Your task to perform on an android device: Clear all items from cart on bestbuy. Add razer thresher to the cart on bestbuy Image 0: 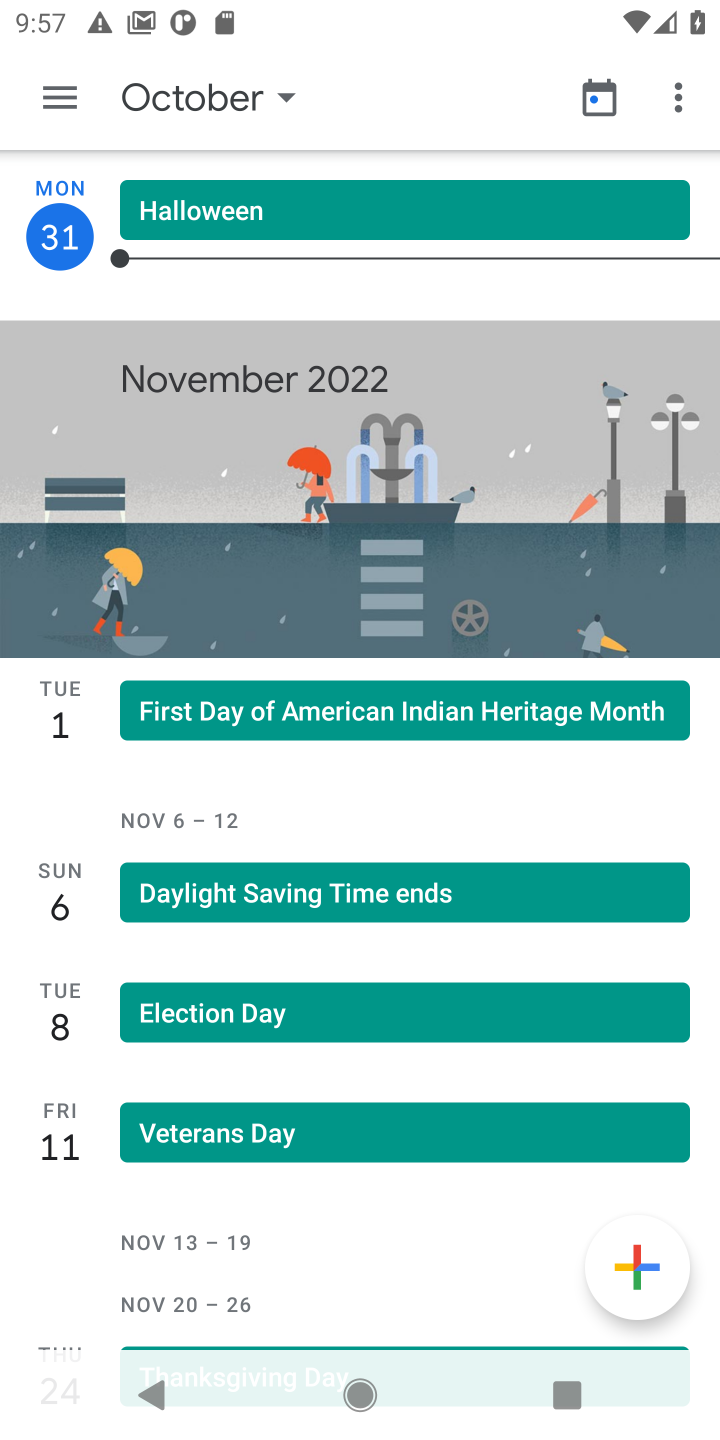
Step 0: press home button
Your task to perform on an android device: Clear all items from cart on bestbuy. Add razer thresher to the cart on bestbuy Image 1: 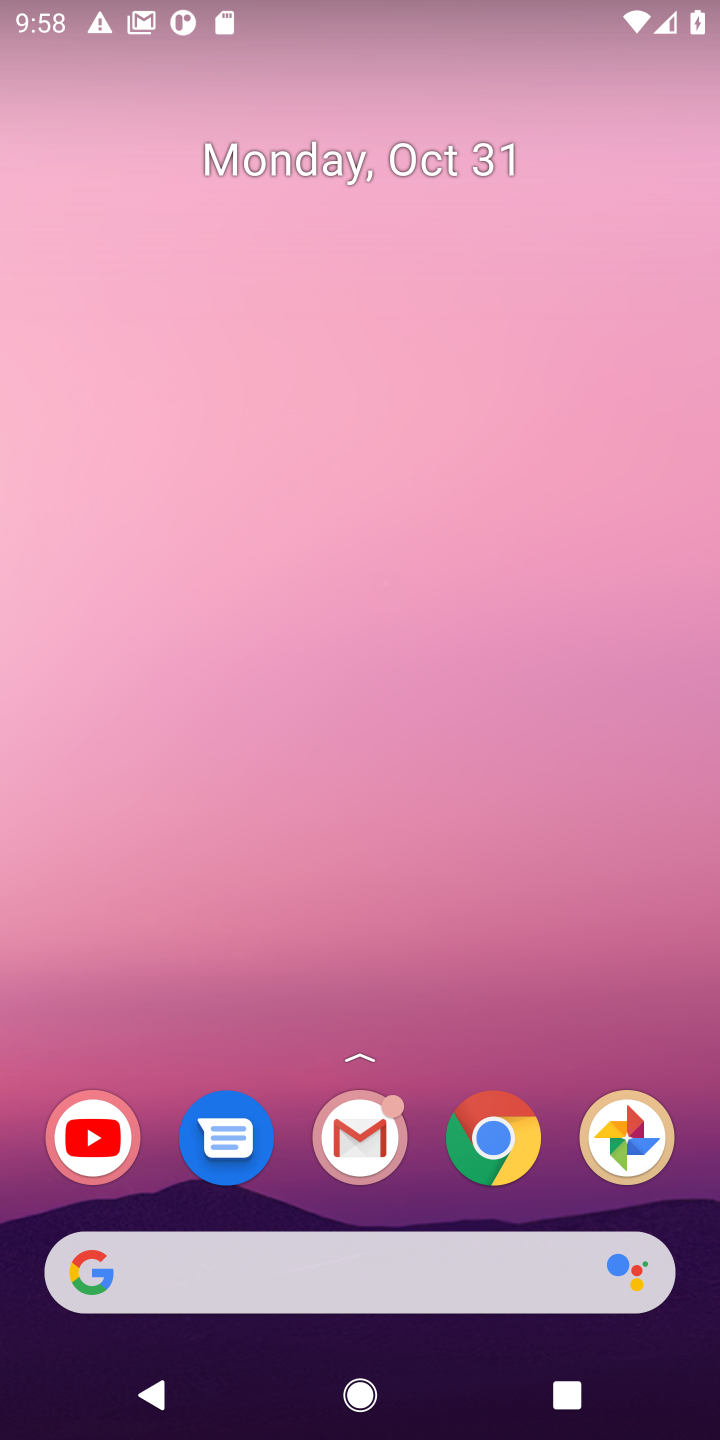
Step 1: drag from (468, 1380) to (499, 126)
Your task to perform on an android device: Clear all items from cart on bestbuy. Add razer thresher to the cart on bestbuy Image 2: 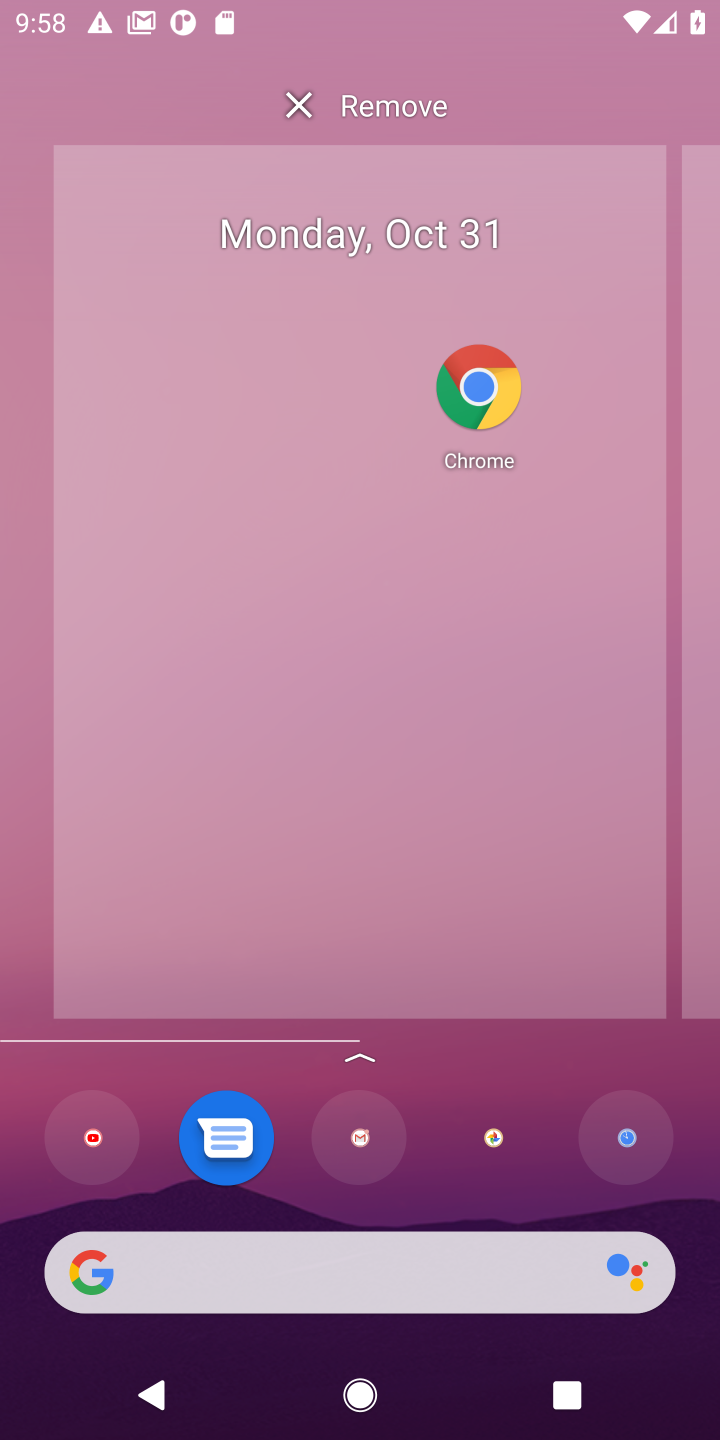
Step 2: click (477, 1093)
Your task to perform on an android device: Clear all items from cart on bestbuy. Add razer thresher to the cart on bestbuy Image 3: 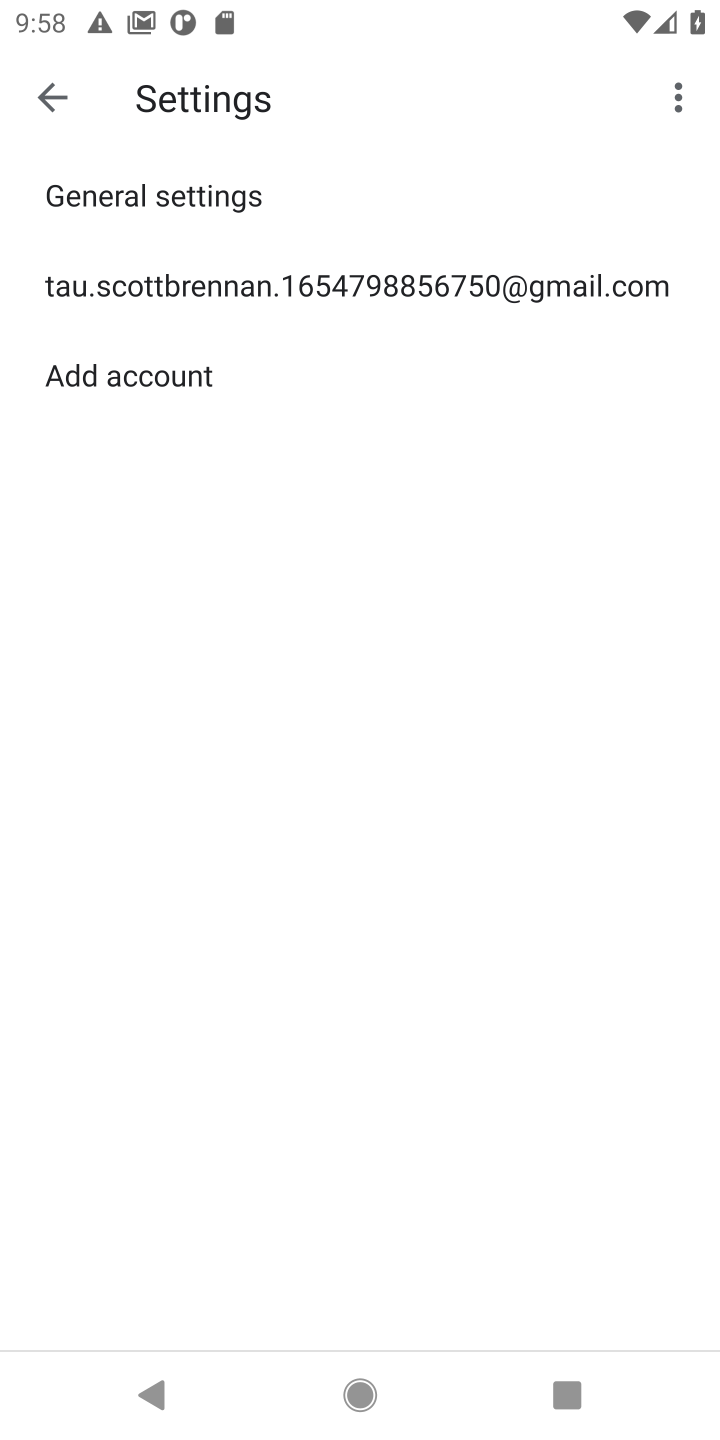
Step 3: press home button
Your task to perform on an android device: Clear all items from cart on bestbuy. Add razer thresher to the cart on bestbuy Image 4: 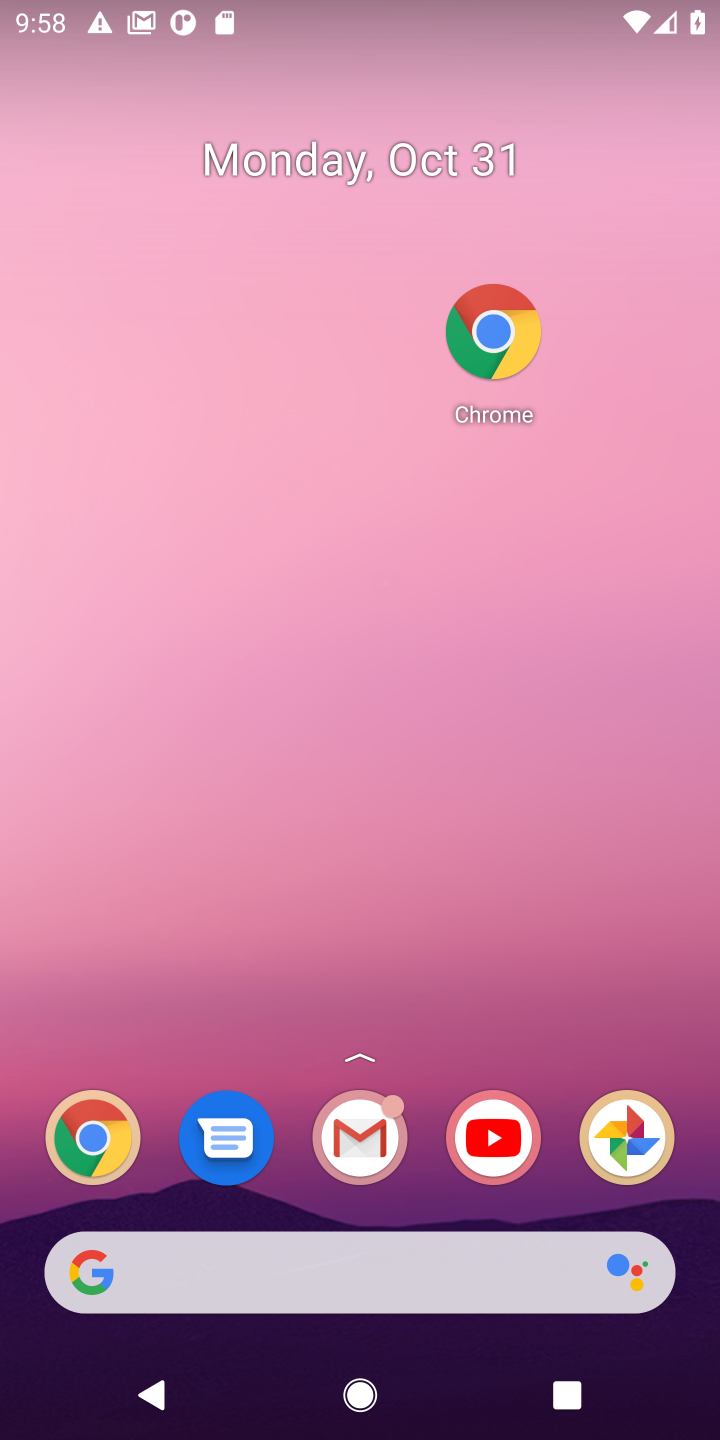
Step 4: drag from (446, 1369) to (252, 246)
Your task to perform on an android device: Clear all items from cart on bestbuy. Add razer thresher to the cart on bestbuy Image 5: 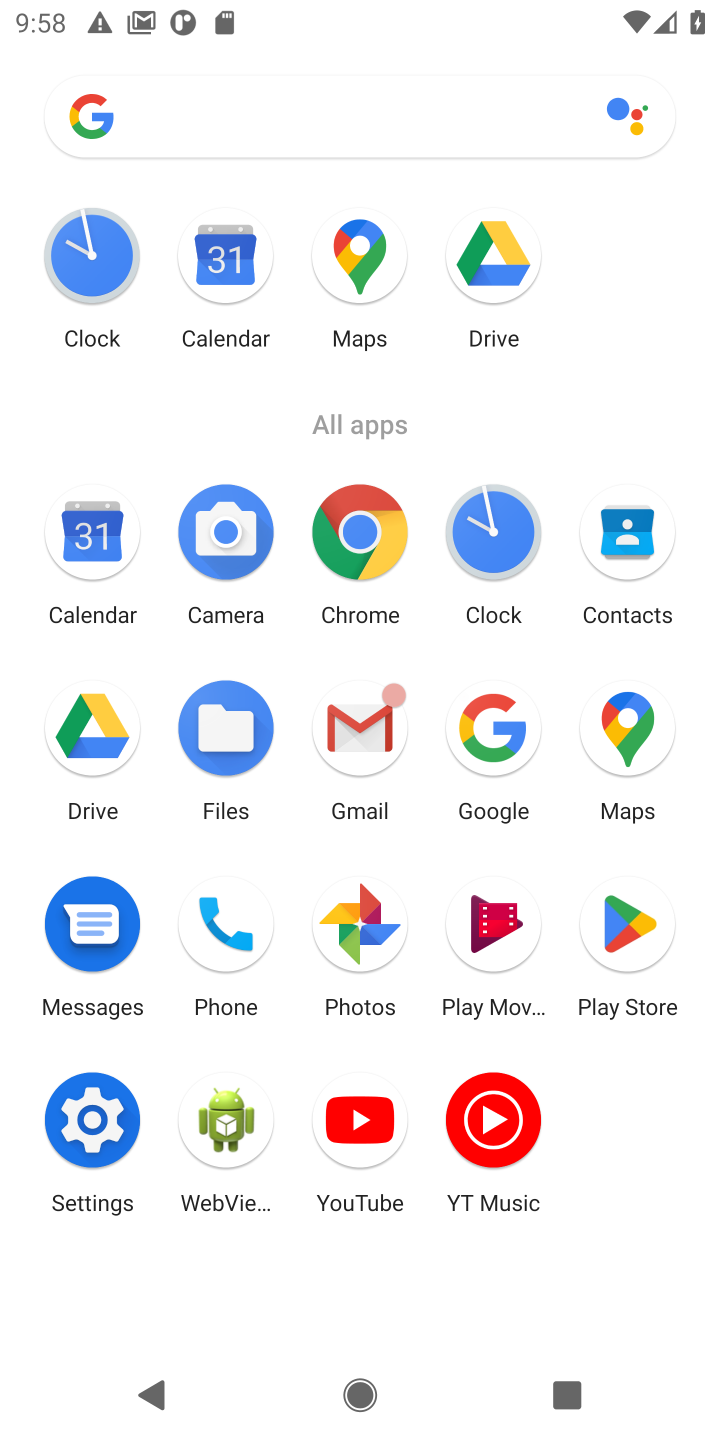
Step 5: click (363, 527)
Your task to perform on an android device: Clear all items from cart on bestbuy. Add razer thresher to the cart on bestbuy Image 6: 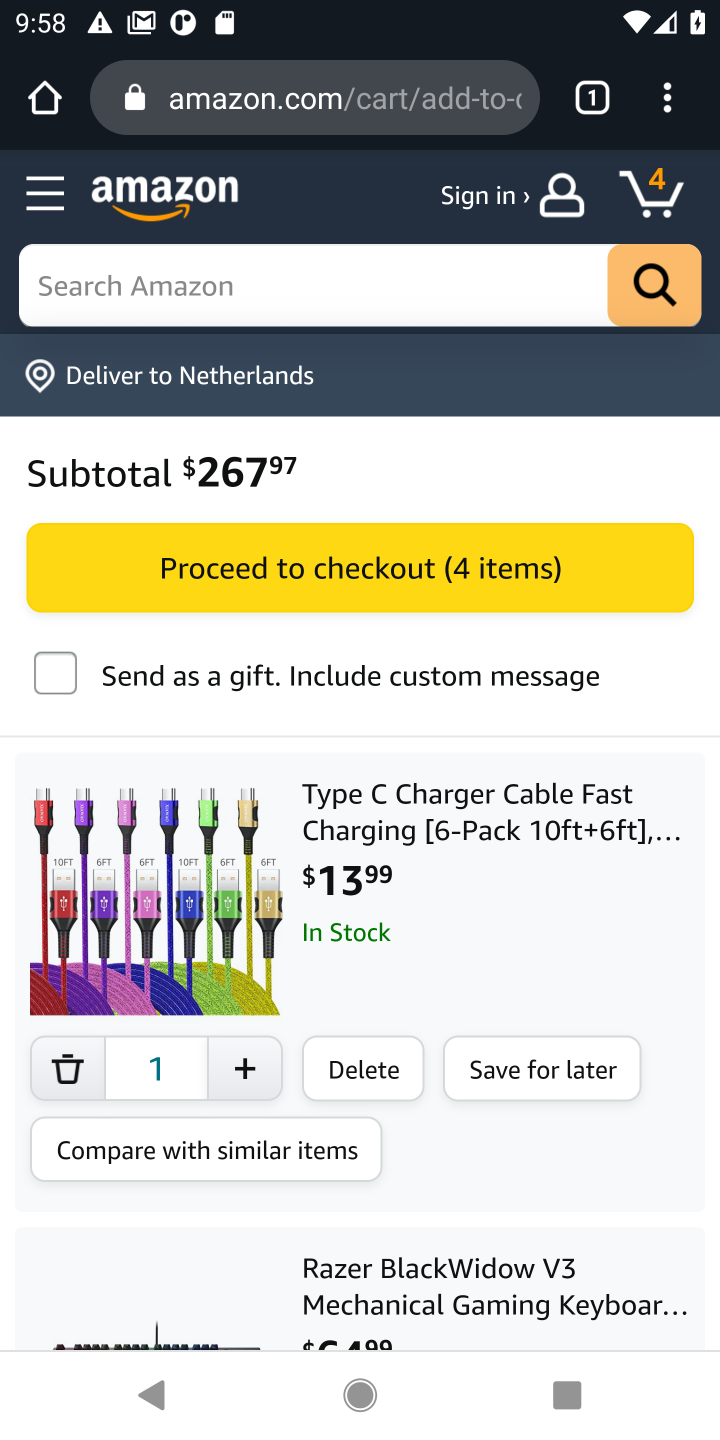
Step 6: click (305, 92)
Your task to perform on an android device: Clear all items from cart on bestbuy. Add razer thresher to the cart on bestbuy Image 7: 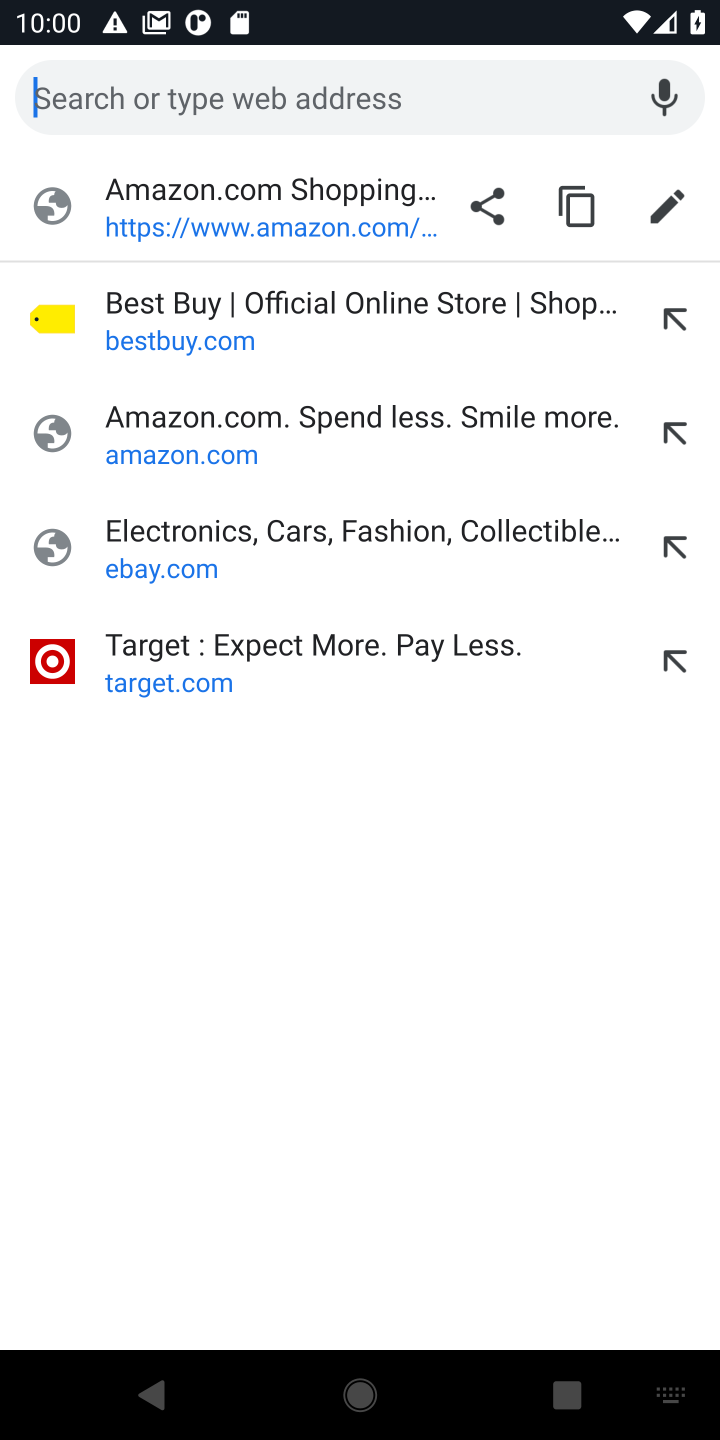
Step 7: click (149, 340)
Your task to perform on an android device: Clear all items from cart on bestbuy. Add razer thresher to the cart on bestbuy Image 8: 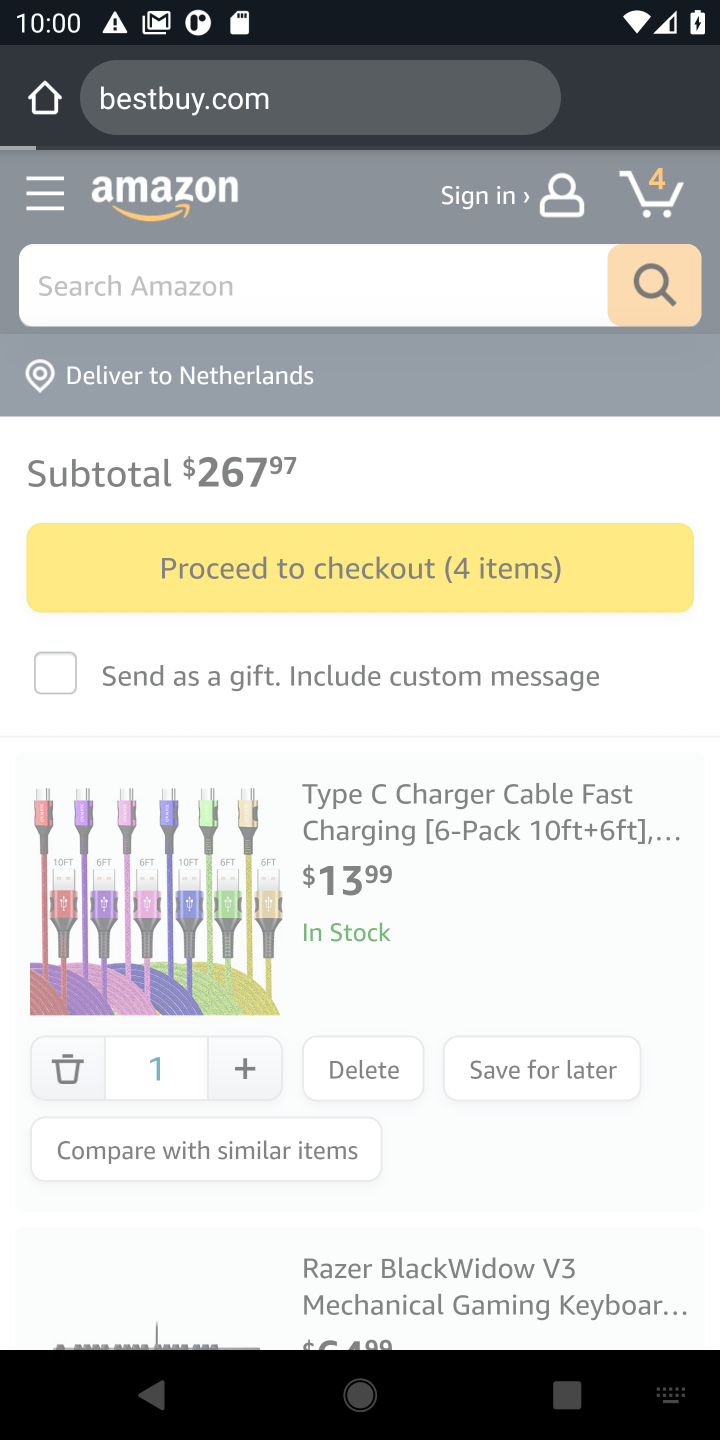
Step 8: click (168, 338)
Your task to perform on an android device: Clear all items from cart on bestbuy. Add razer thresher to the cart on bestbuy Image 9: 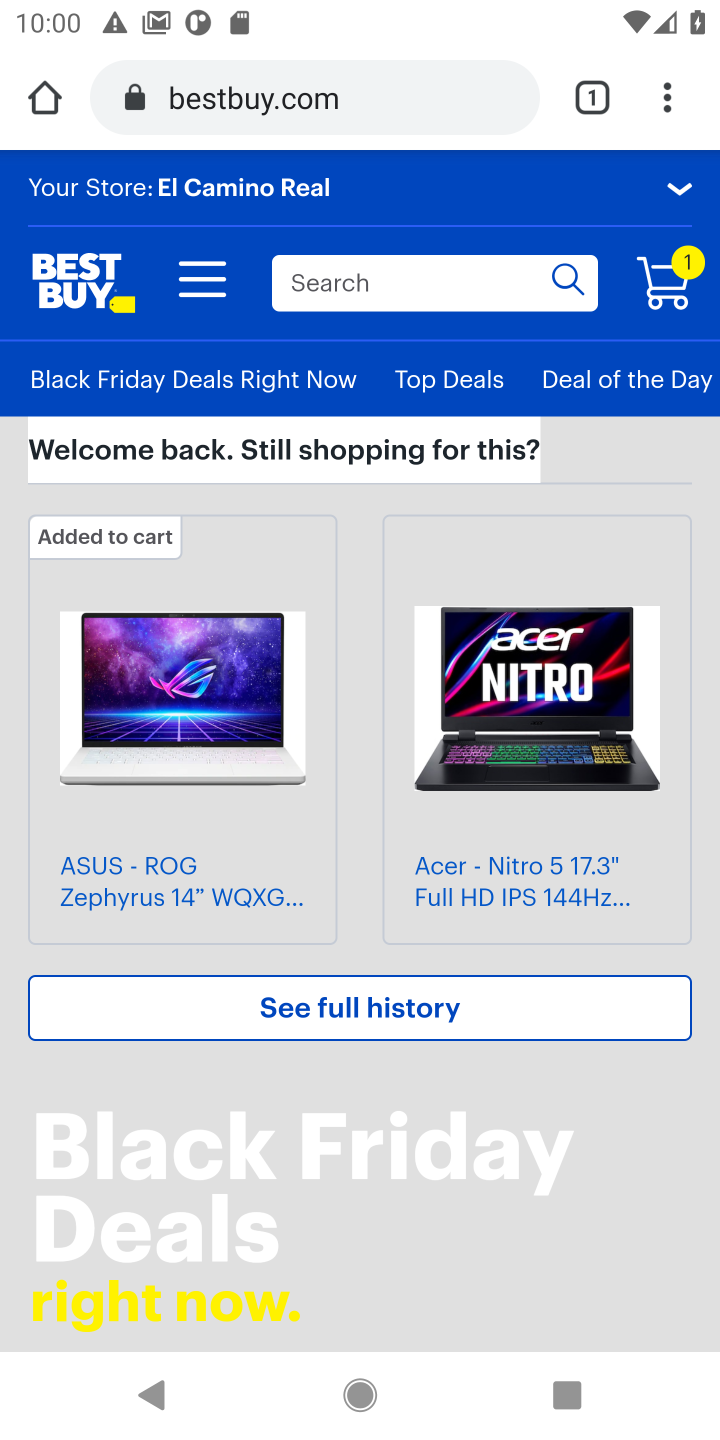
Step 9: click (364, 278)
Your task to perform on an android device: Clear all items from cart on bestbuy. Add razer thresher to the cart on bestbuy Image 10: 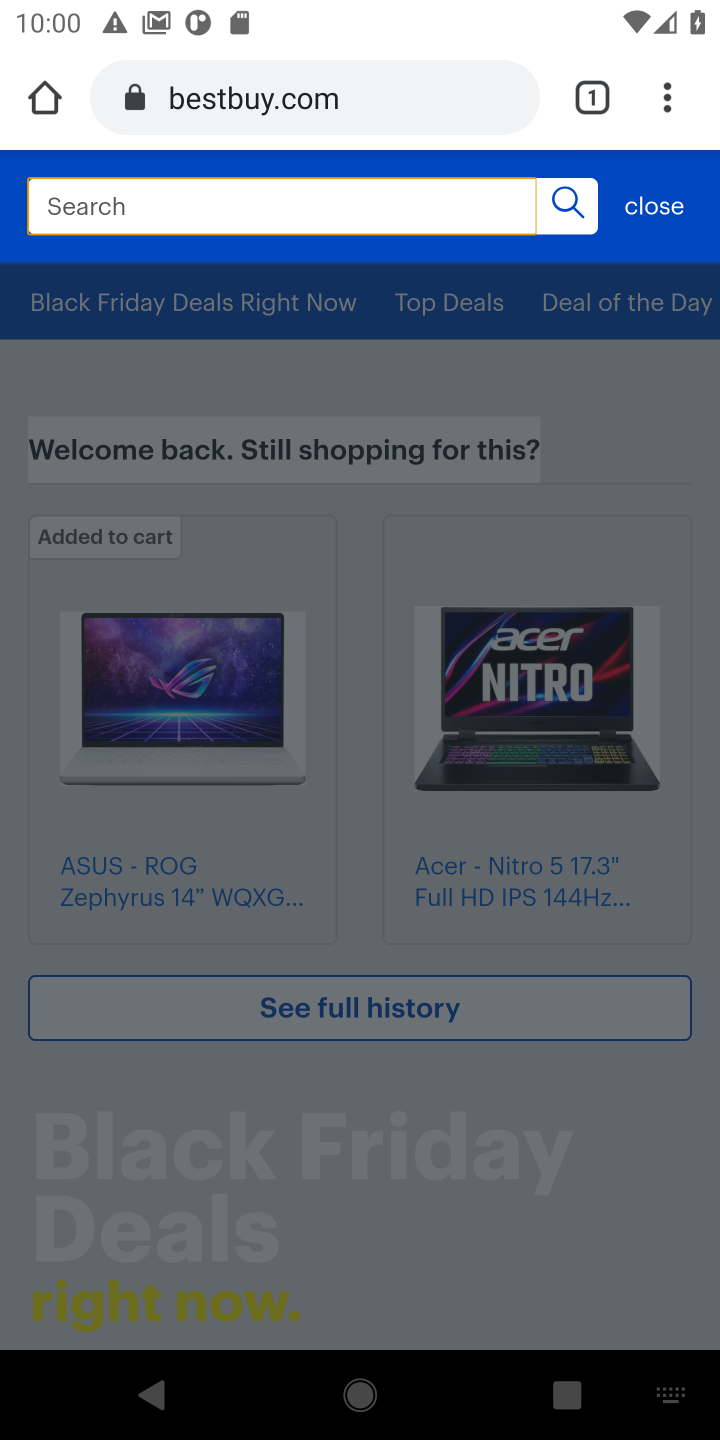
Step 10: type " razer thresher "
Your task to perform on an android device: Clear all items from cart on bestbuy. Add razer thresher to the cart on bestbuy Image 11: 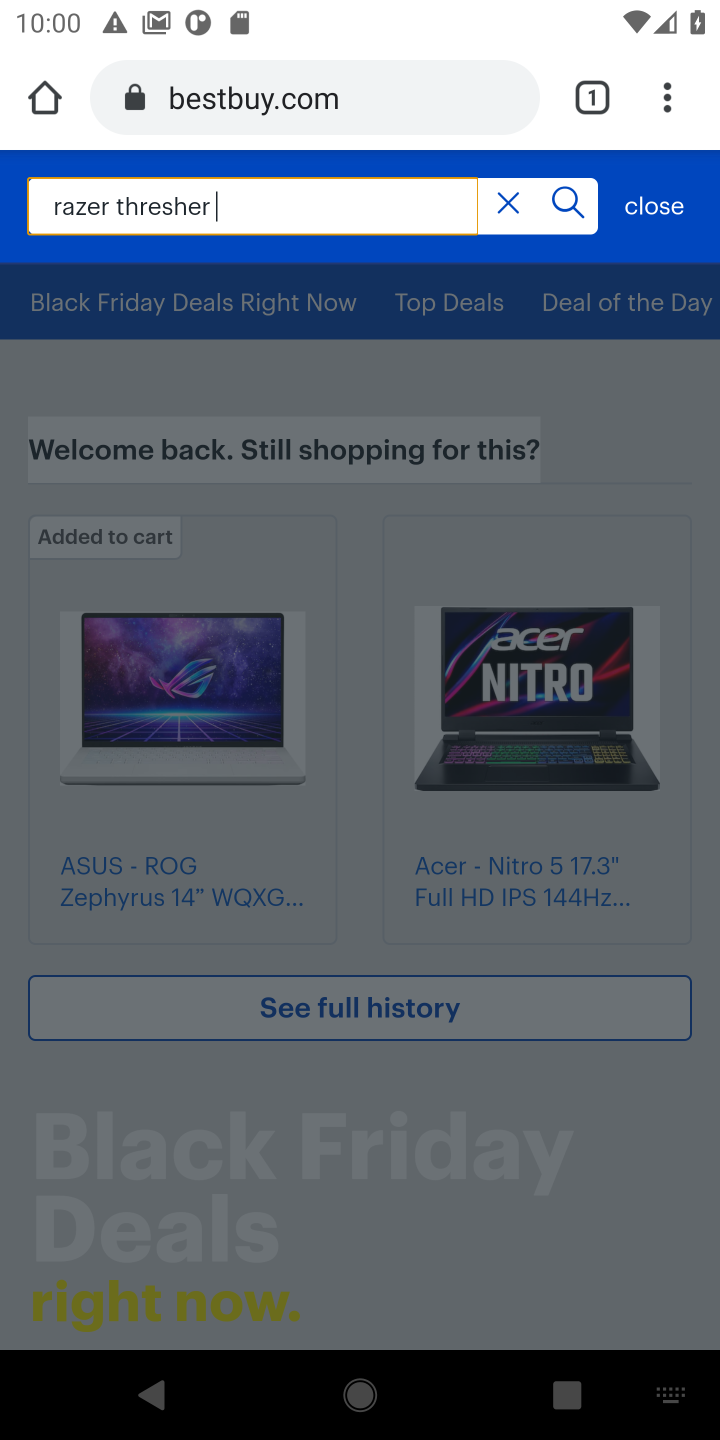
Step 11: click (566, 203)
Your task to perform on an android device: Clear all items from cart on bestbuy. Add razer thresher to the cart on bestbuy Image 12: 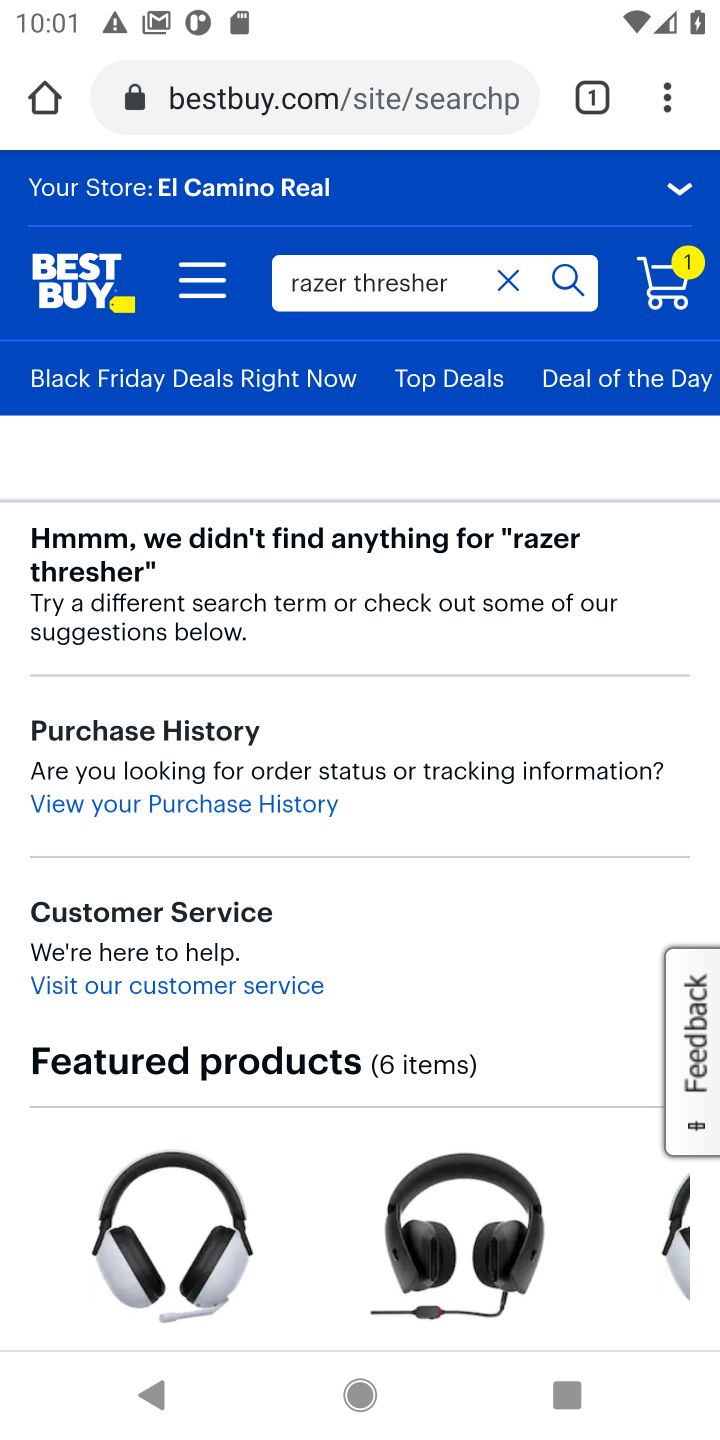
Step 12: click (561, 290)
Your task to perform on an android device: Clear all items from cart on bestbuy. Add razer thresher to the cart on bestbuy Image 13: 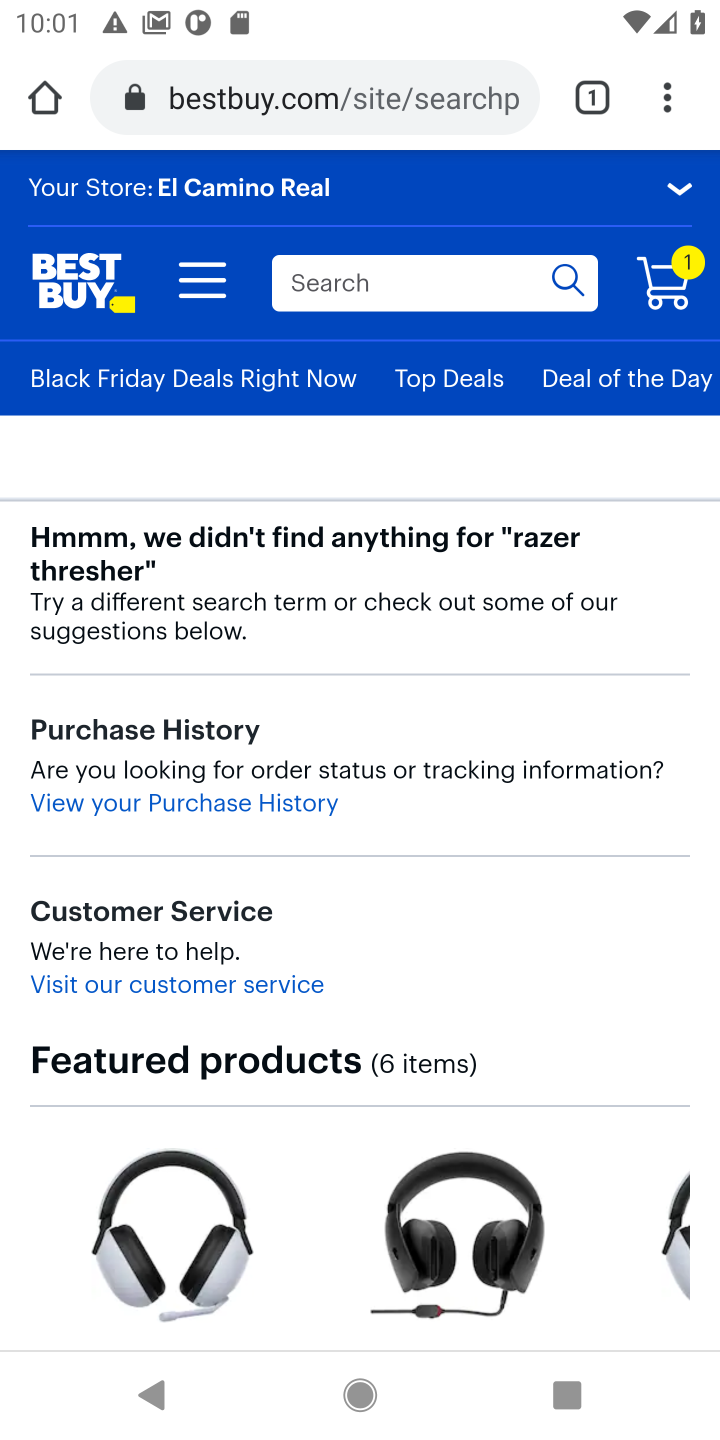
Step 13: drag from (311, 1178) to (163, 453)
Your task to perform on an android device: Clear all items from cart on bestbuy. Add razer thresher to the cart on bestbuy Image 14: 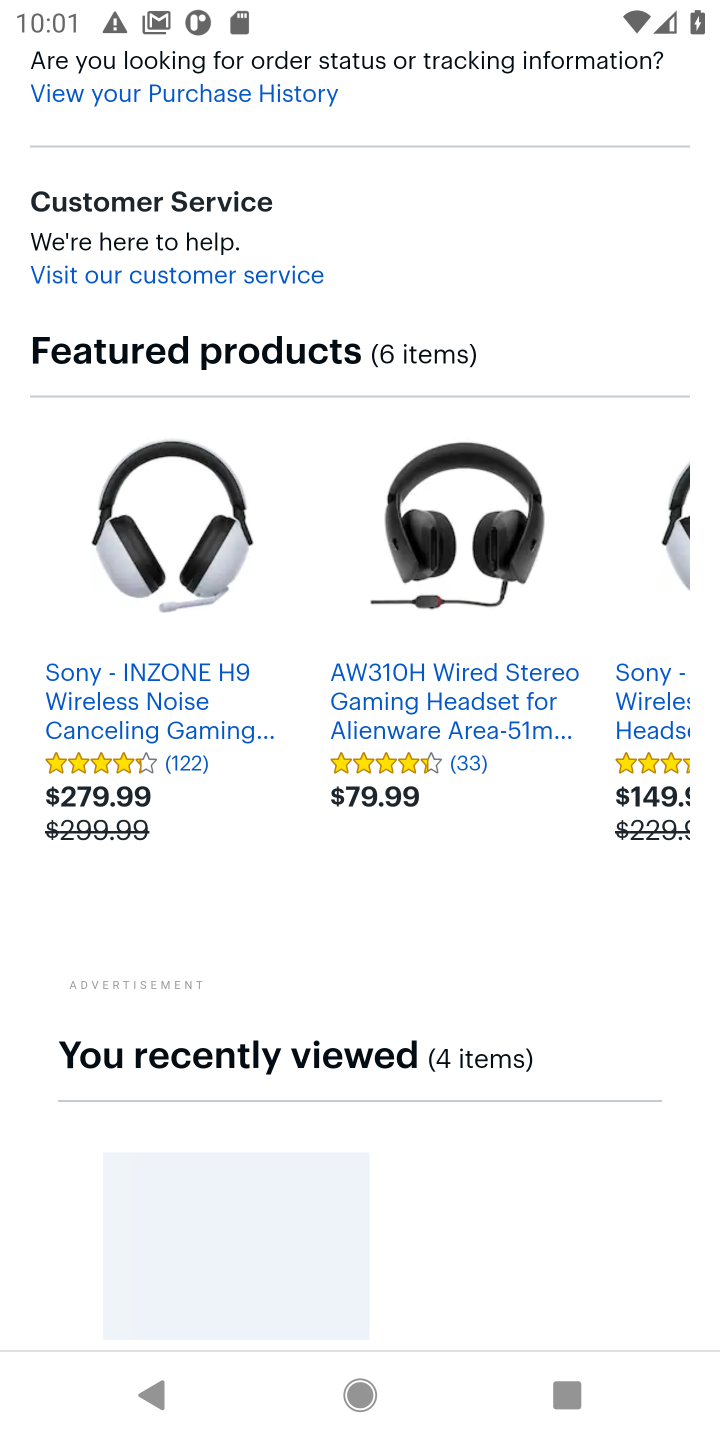
Step 14: click (174, 576)
Your task to perform on an android device: Clear all items from cart on bestbuy. Add razer thresher to the cart on bestbuy Image 15: 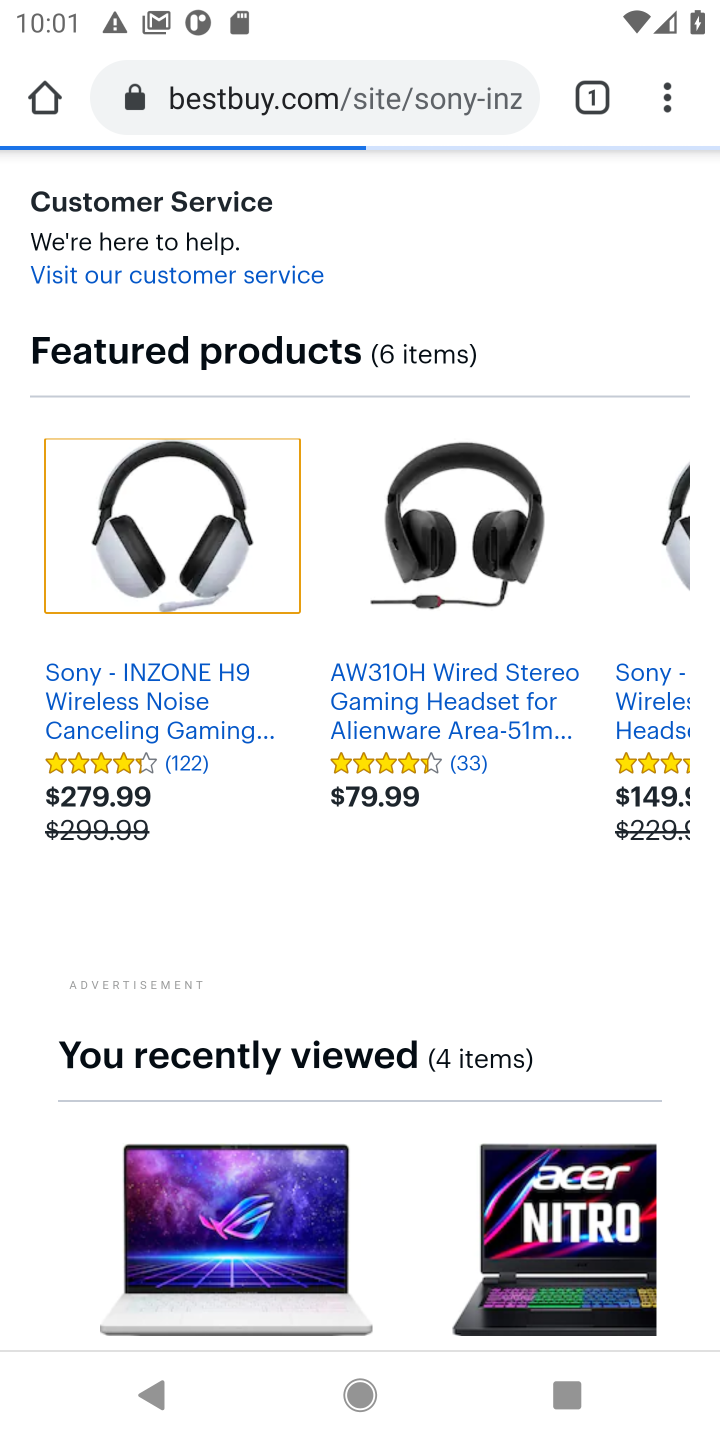
Step 15: drag from (504, 275) to (539, 781)
Your task to perform on an android device: Clear all items from cart on bestbuy. Add razer thresher to the cart on bestbuy Image 16: 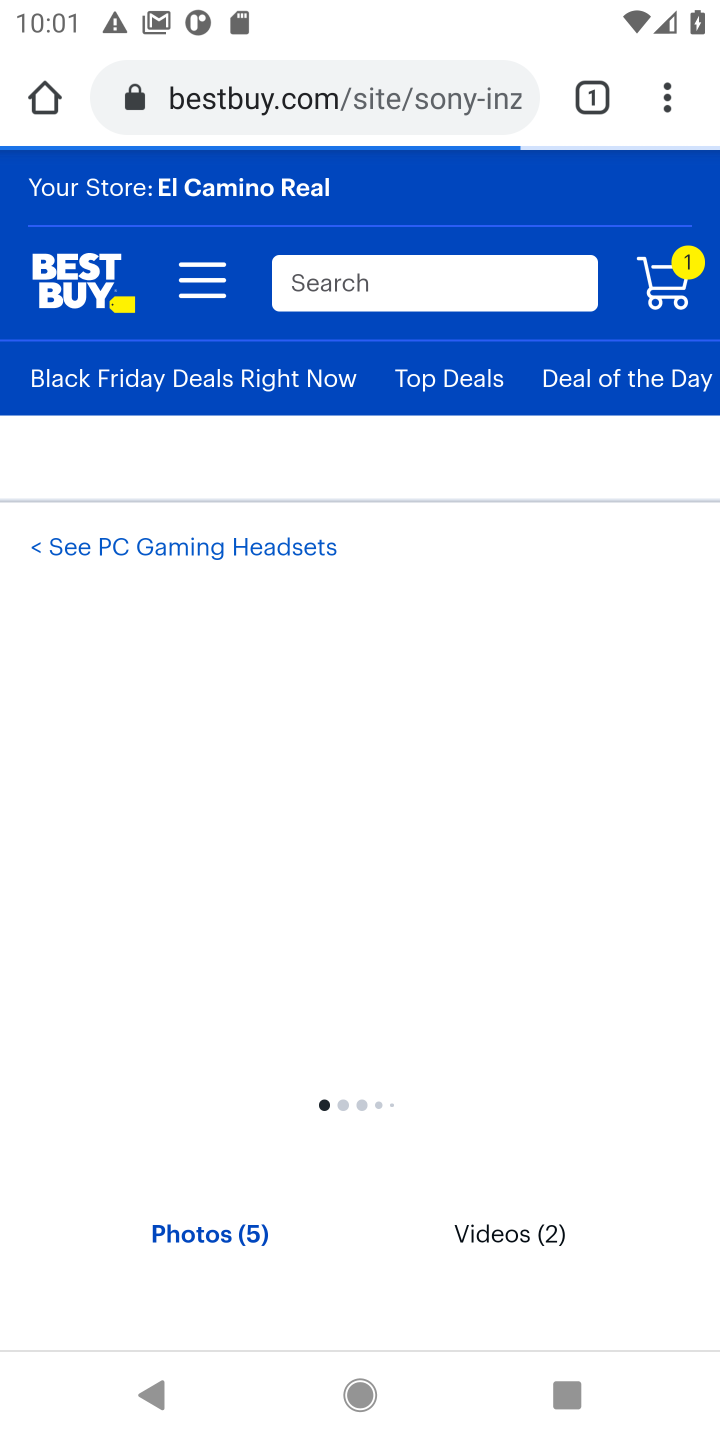
Step 16: press back button
Your task to perform on an android device: Clear all items from cart on bestbuy. Add razer thresher to the cart on bestbuy Image 17: 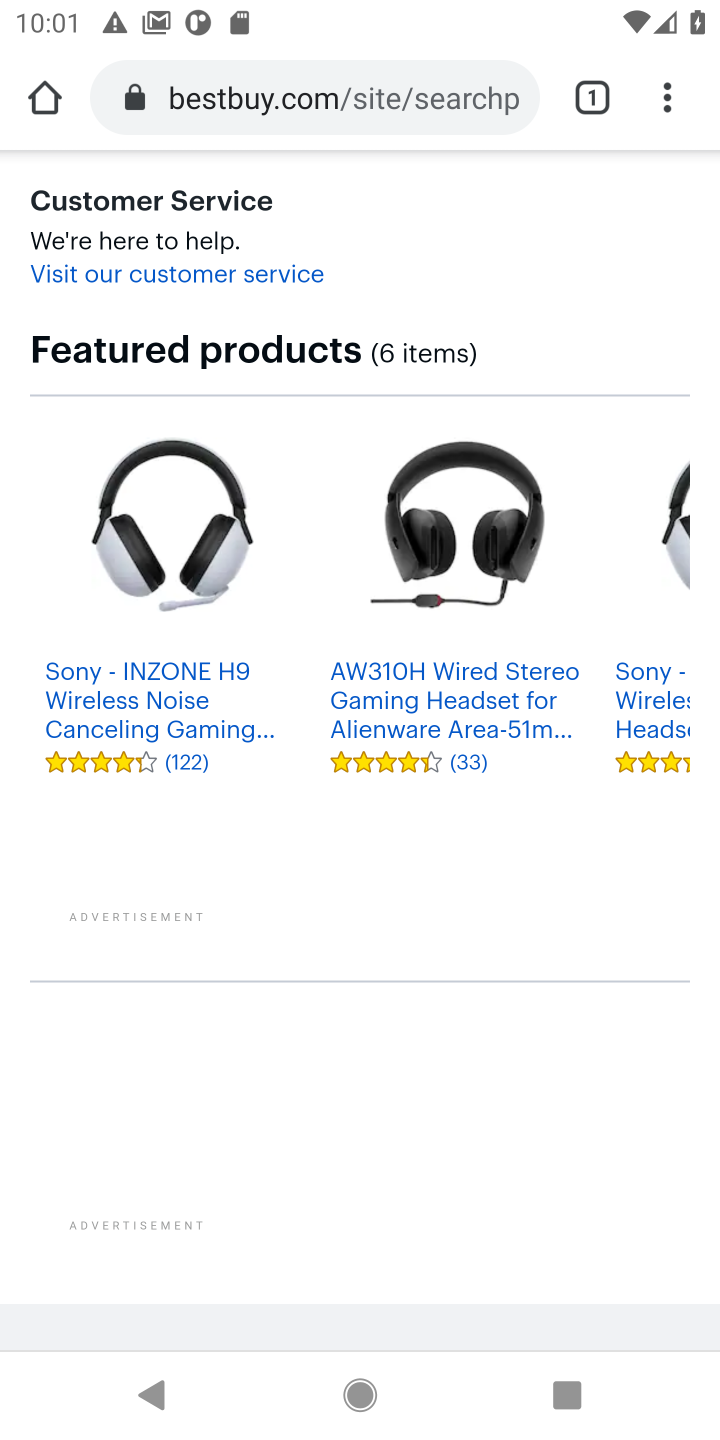
Step 17: drag from (509, 293) to (331, 1349)
Your task to perform on an android device: Clear all items from cart on bestbuy. Add razer thresher to the cart on bestbuy Image 18: 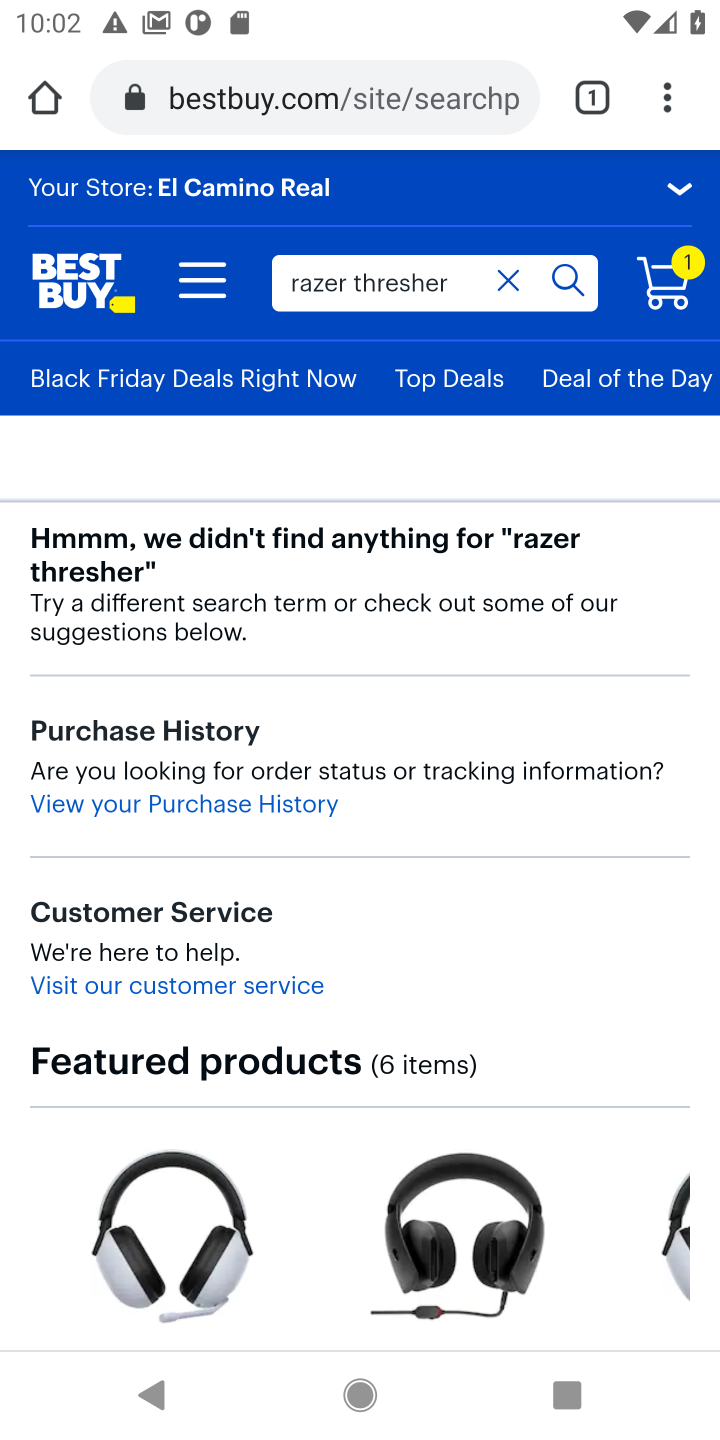
Step 18: drag from (470, 937) to (379, 440)
Your task to perform on an android device: Clear all items from cart on bestbuy. Add razer thresher to the cart on bestbuy Image 19: 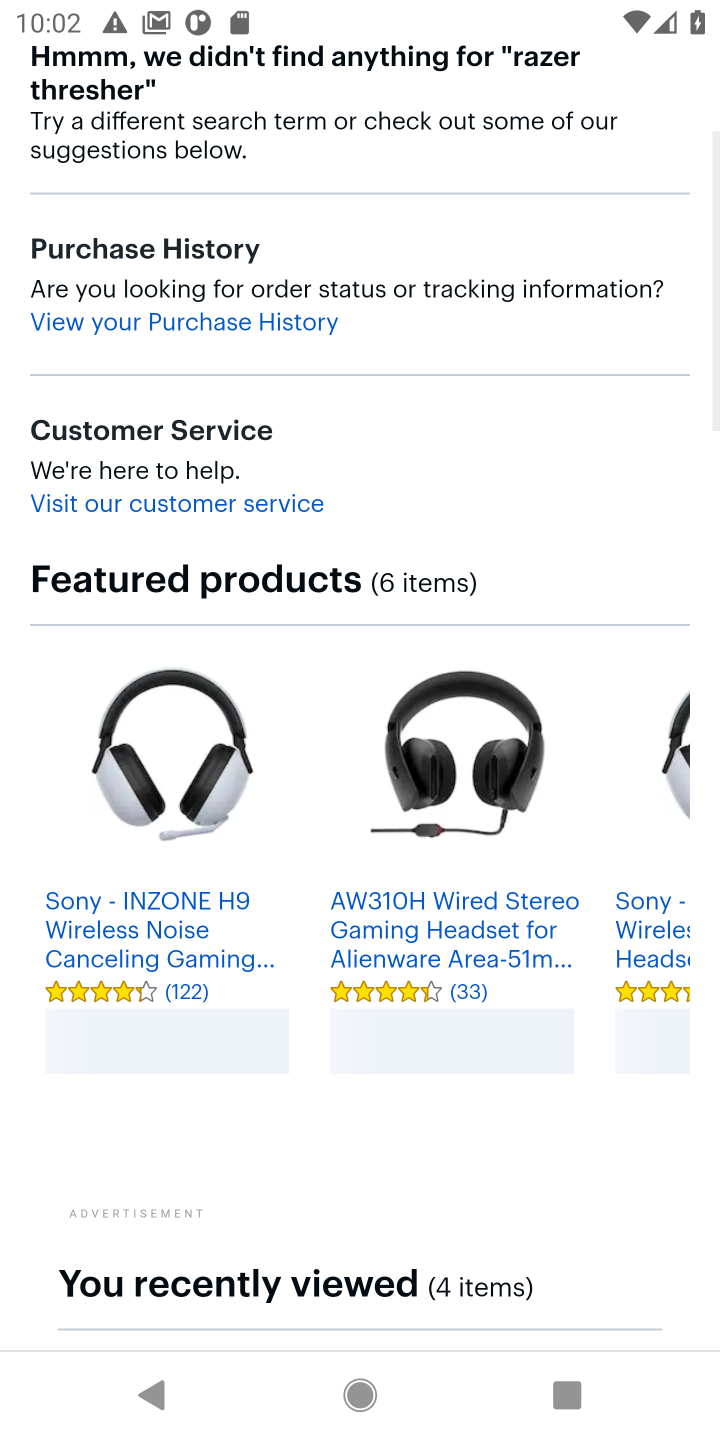
Step 19: drag from (352, 1161) to (453, 243)
Your task to perform on an android device: Clear all items from cart on bestbuy. Add razer thresher to the cart on bestbuy Image 20: 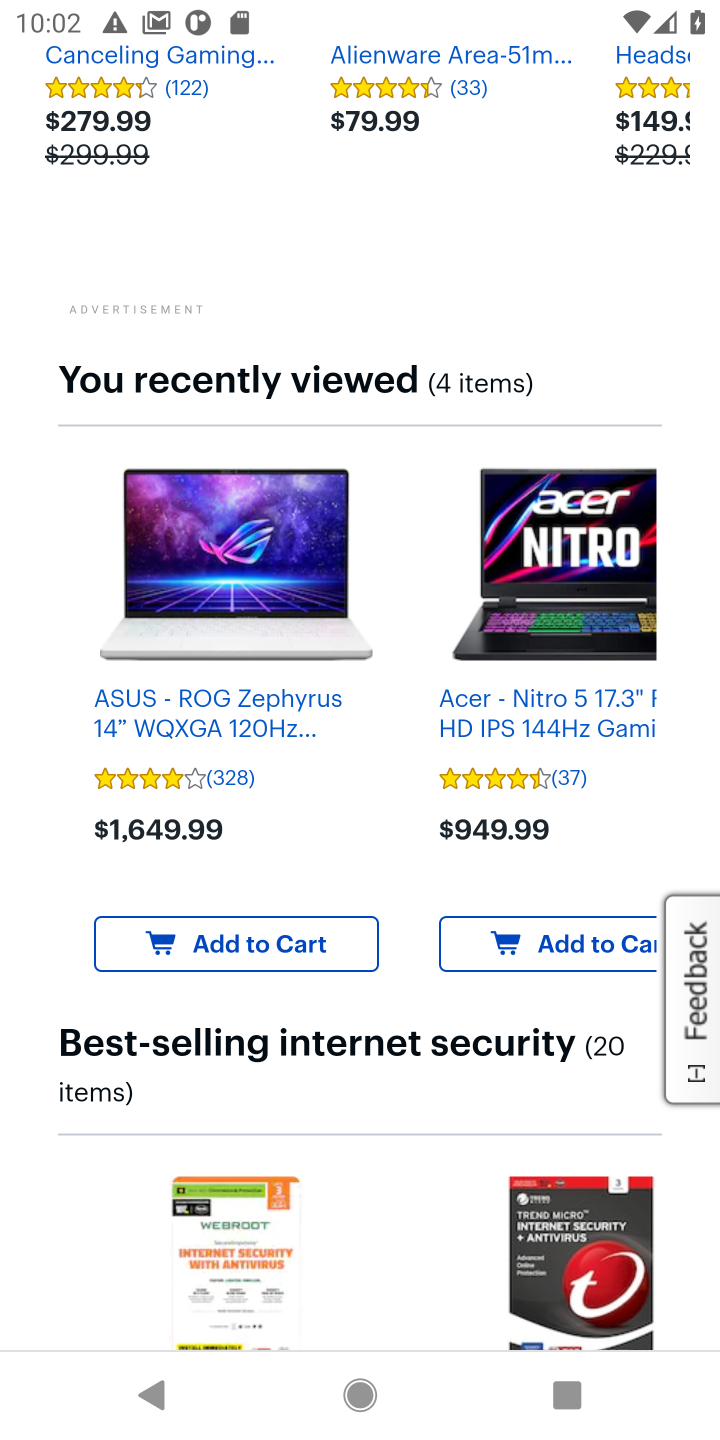
Step 20: click (247, 950)
Your task to perform on an android device: Clear all items from cart on bestbuy. Add razer thresher to the cart on bestbuy Image 21: 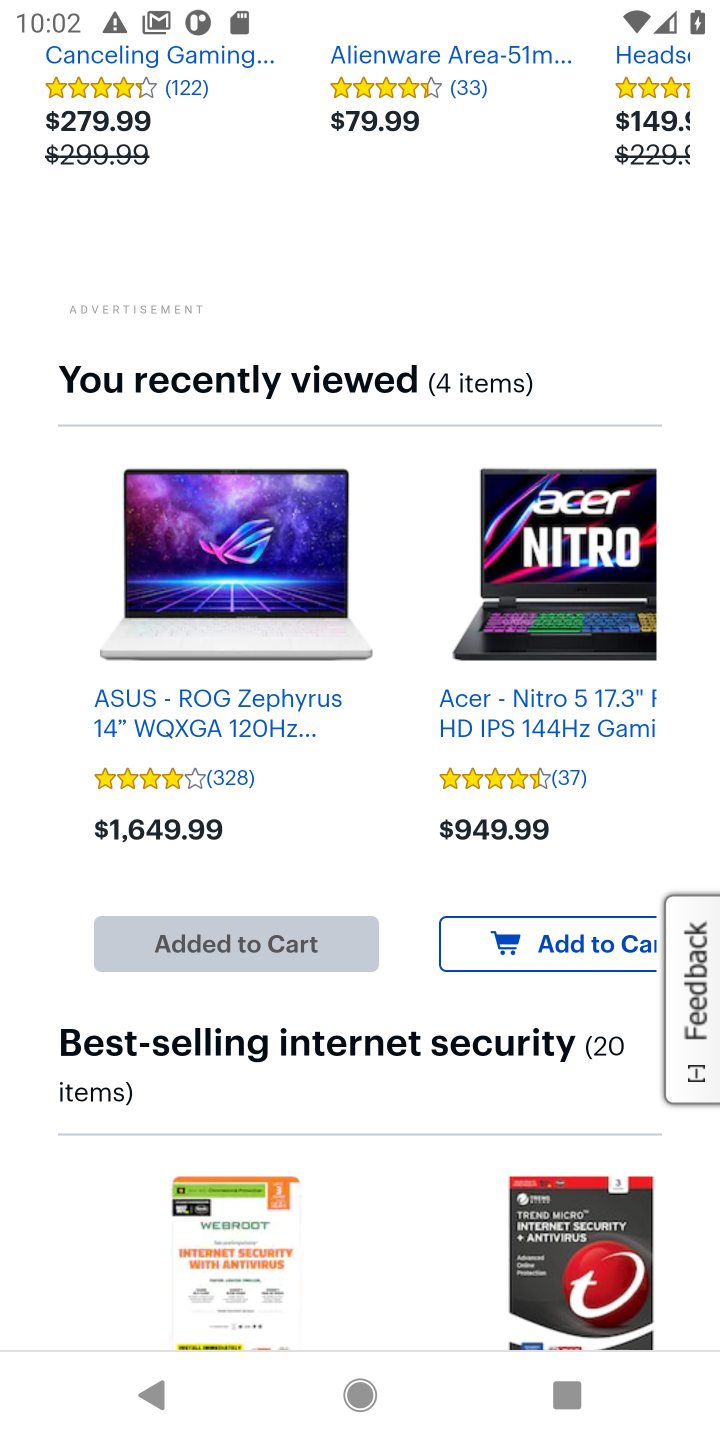
Step 21: task complete